Your task to perform on an android device: toggle notifications settings in the gmail app Image 0: 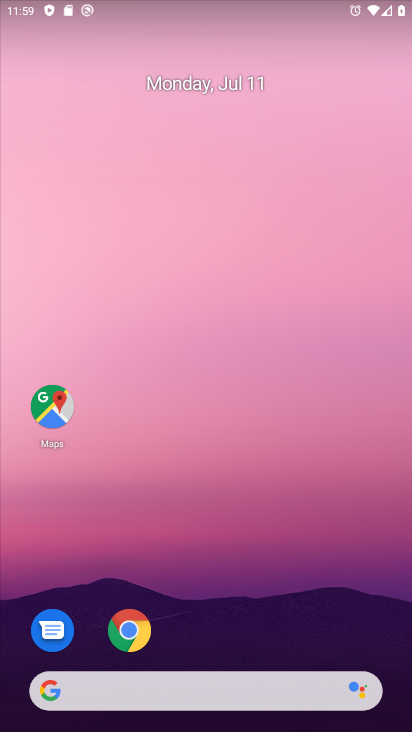
Step 0: drag from (219, 666) to (217, 72)
Your task to perform on an android device: toggle notifications settings in the gmail app Image 1: 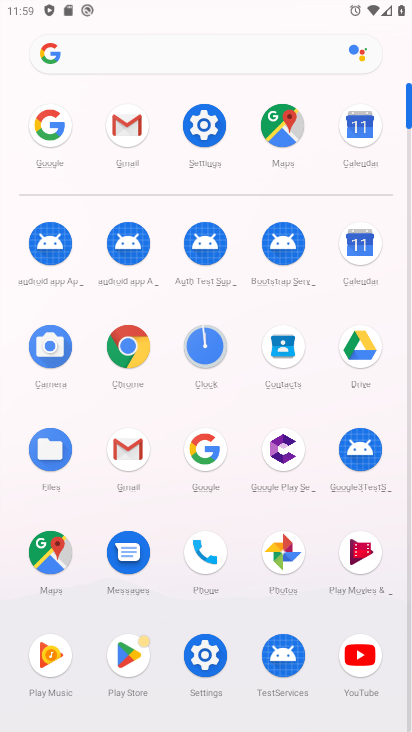
Step 1: click (127, 122)
Your task to perform on an android device: toggle notifications settings in the gmail app Image 2: 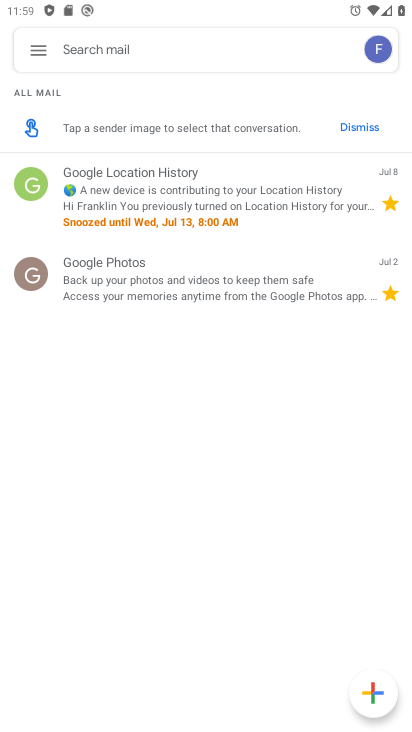
Step 2: click (39, 49)
Your task to perform on an android device: toggle notifications settings in the gmail app Image 3: 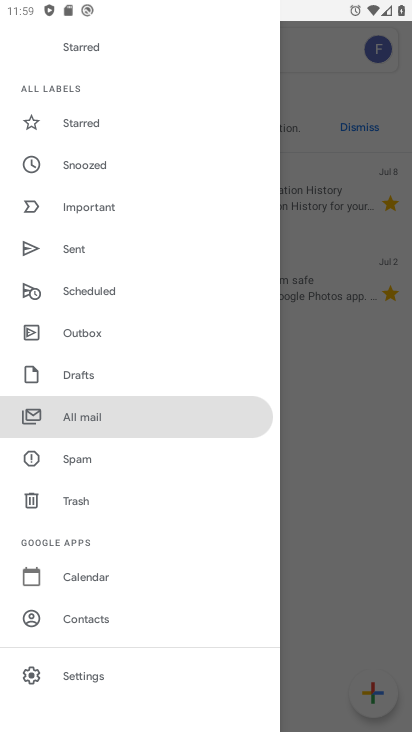
Step 3: drag from (100, 596) to (179, 493)
Your task to perform on an android device: toggle notifications settings in the gmail app Image 4: 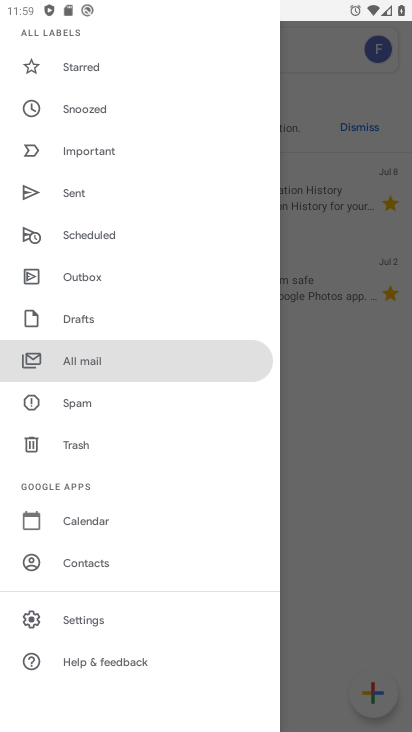
Step 4: click (78, 622)
Your task to perform on an android device: toggle notifications settings in the gmail app Image 5: 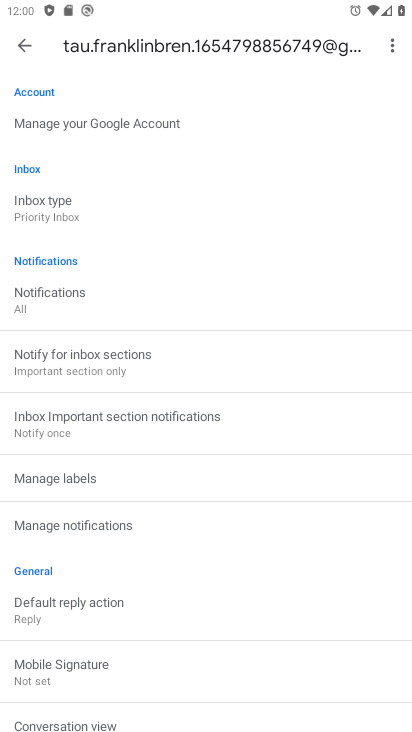
Step 5: click (77, 523)
Your task to perform on an android device: toggle notifications settings in the gmail app Image 6: 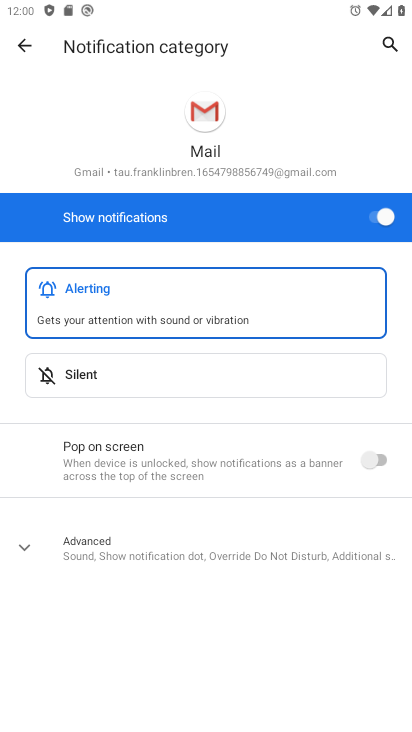
Step 6: click (387, 216)
Your task to perform on an android device: toggle notifications settings in the gmail app Image 7: 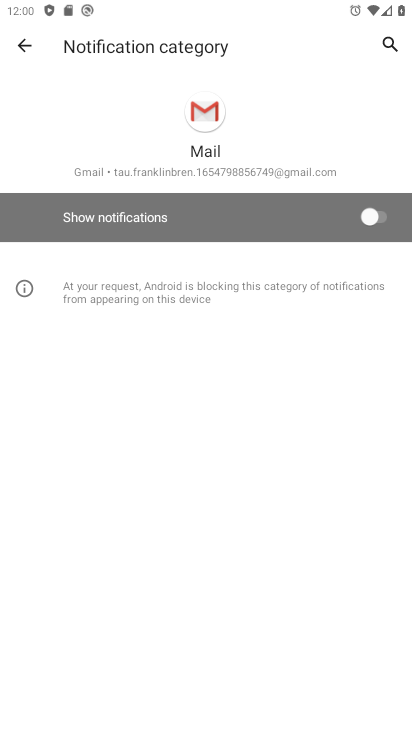
Step 7: task complete